Your task to perform on an android device: Open Reddit.com Image 0: 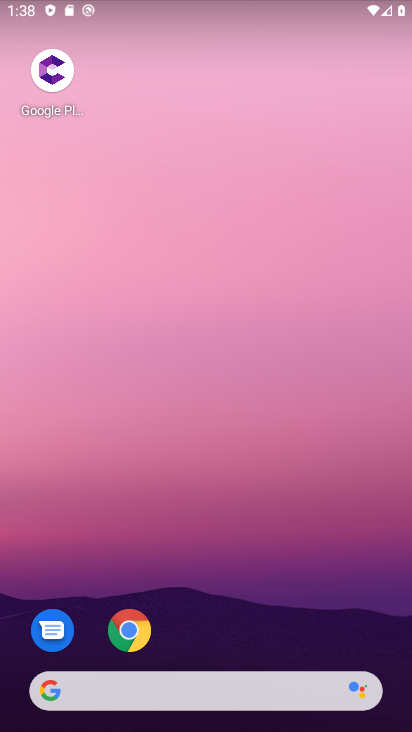
Step 0: drag from (342, 589) to (282, 123)
Your task to perform on an android device: Open Reddit.com Image 1: 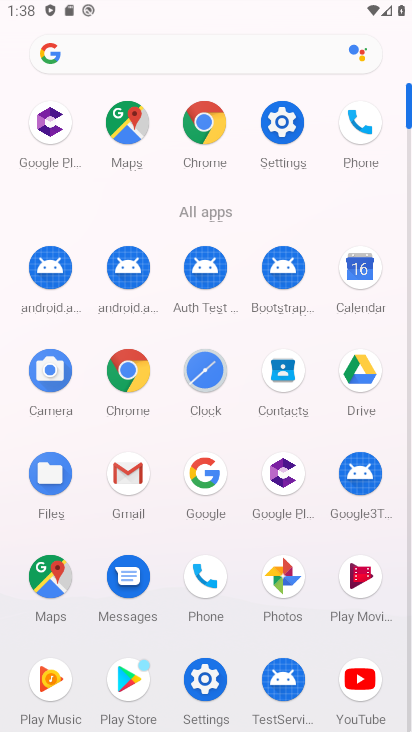
Step 1: click (206, 111)
Your task to perform on an android device: Open Reddit.com Image 2: 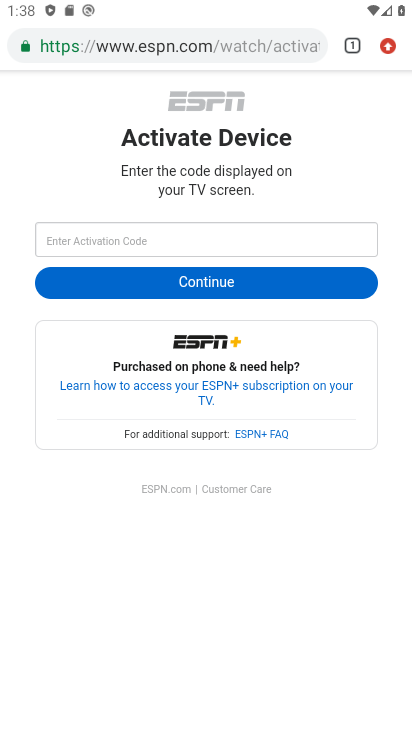
Step 2: click (248, 52)
Your task to perform on an android device: Open Reddit.com Image 3: 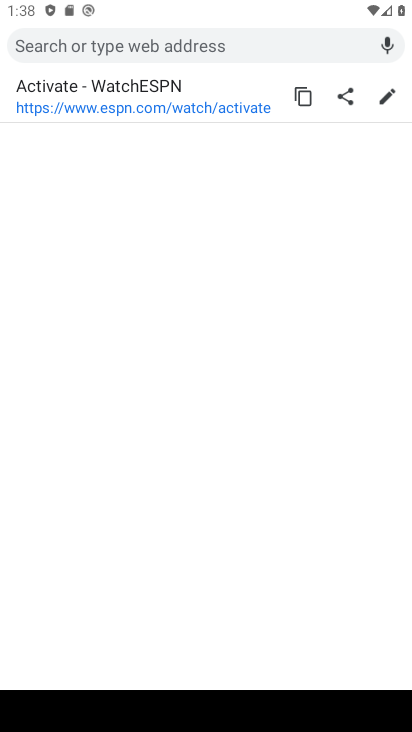
Step 3: type "reddit.com"
Your task to perform on an android device: Open Reddit.com Image 4: 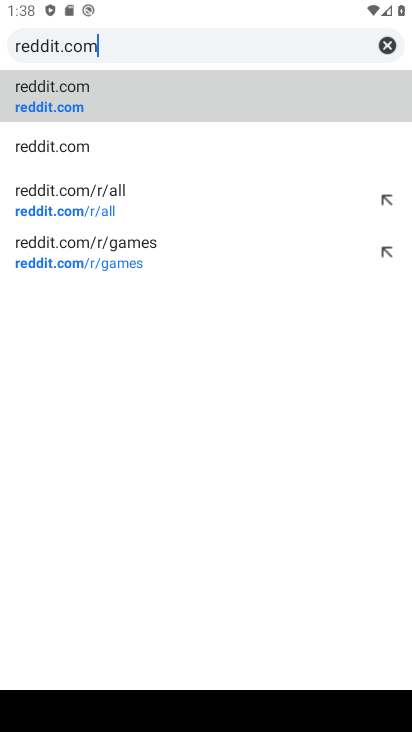
Step 4: click (81, 87)
Your task to perform on an android device: Open Reddit.com Image 5: 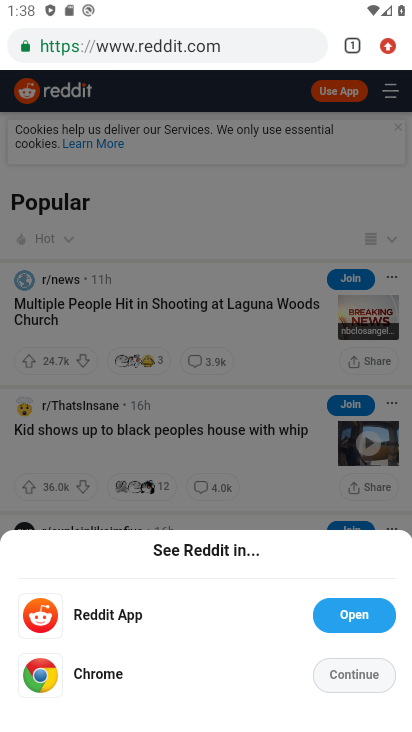
Step 5: task complete